Your task to perform on an android device: toggle translation in the chrome app Image 0: 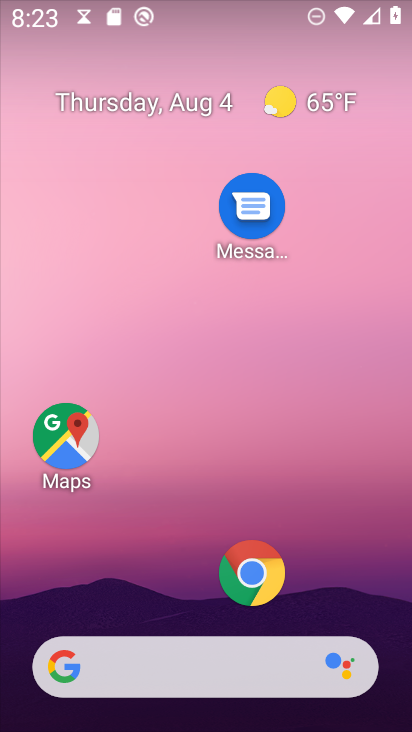
Step 0: press home button
Your task to perform on an android device: toggle translation in the chrome app Image 1: 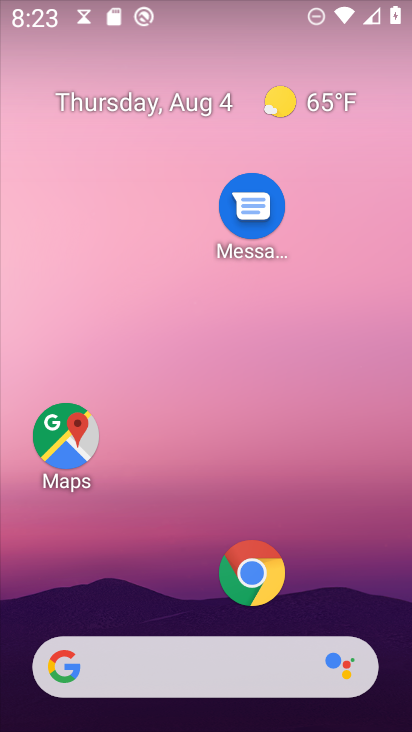
Step 1: drag from (166, 575) to (116, 233)
Your task to perform on an android device: toggle translation in the chrome app Image 2: 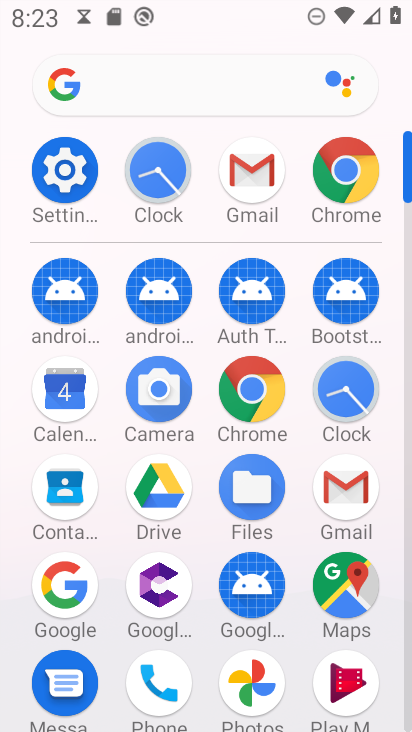
Step 2: click (338, 152)
Your task to perform on an android device: toggle translation in the chrome app Image 3: 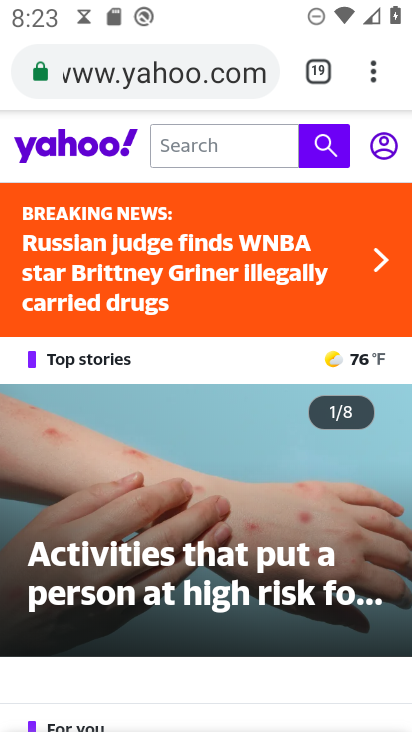
Step 3: drag from (378, 73) to (201, 584)
Your task to perform on an android device: toggle translation in the chrome app Image 4: 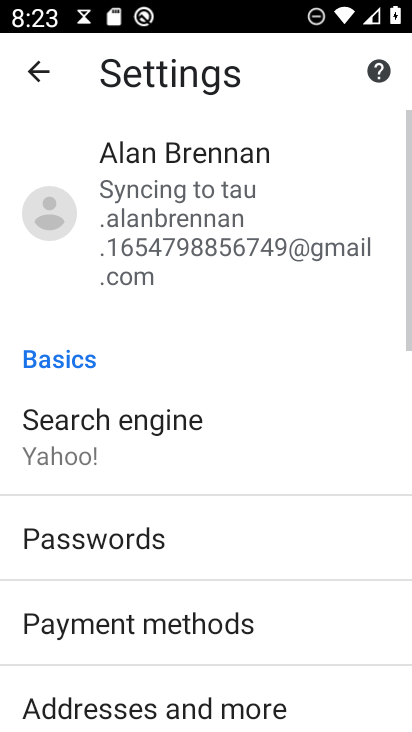
Step 4: drag from (339, 686) to (282, 266)
Your task to perform on an android device: toggle translation in the chrome app Image 5: 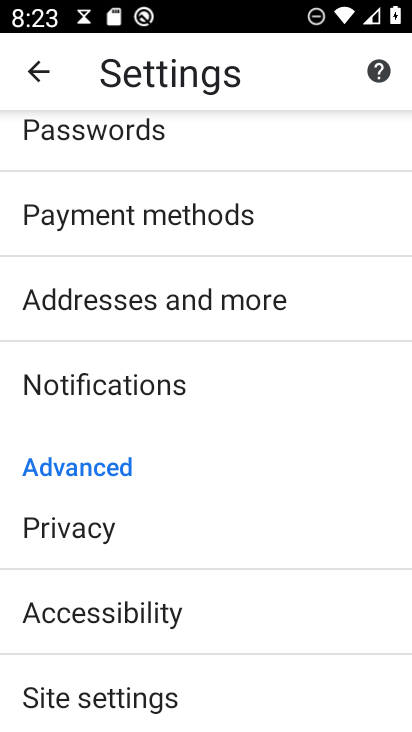
Step 5: drag from (281, 647) to (263, 326)
Your task to perform on an android device: toggle translation in the chrome app Image 6: 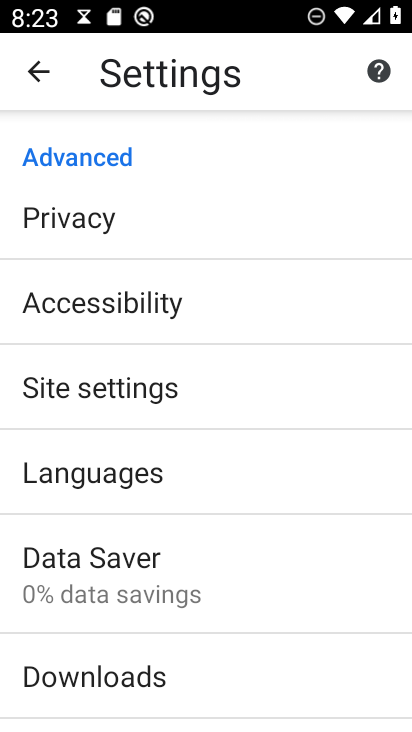
Step 6: click (77, 479)
Your task to perform on an android device: toggle translation in the chrome app Image 7: 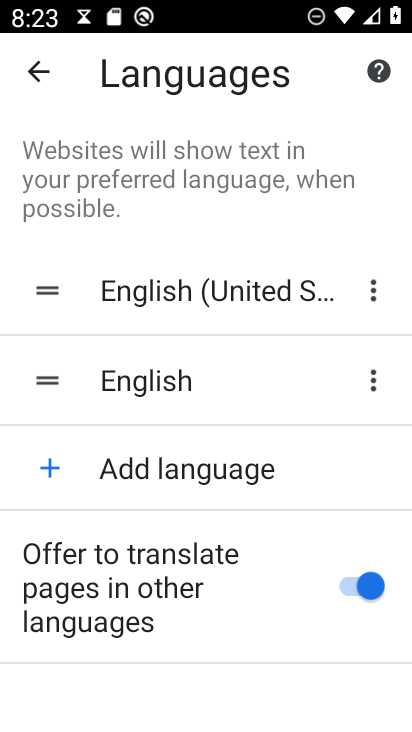
Step 7: click (367, 579)
Your task to perform on an android device: toggle translation in the chrome app Image 8: 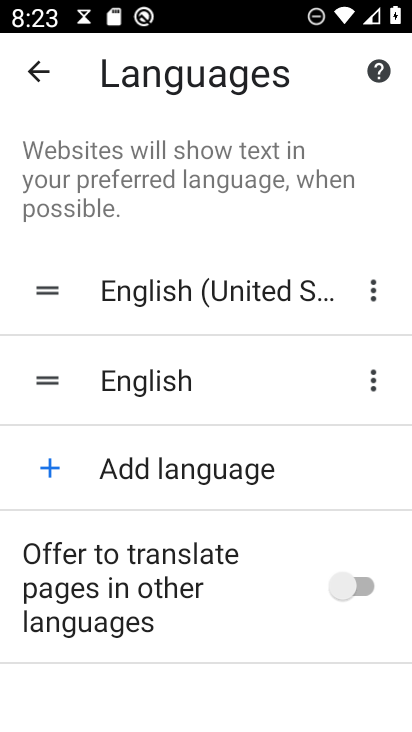
Step 8: task complete